Your task to perform on an android device: turn off notifications settings in the gmail app Image 0: 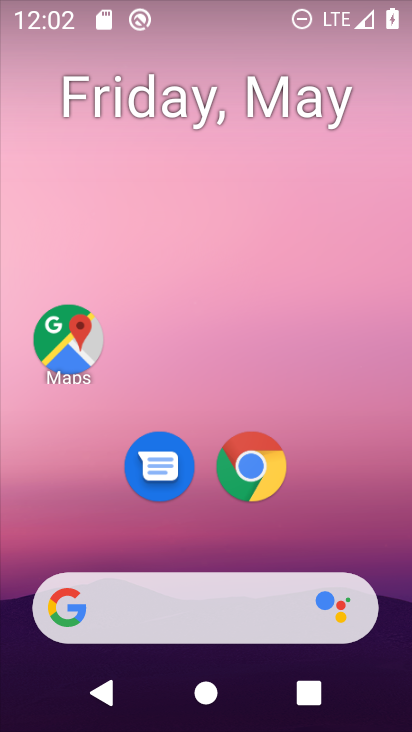
Step 0: drag from (224, 603) to (274, 34)
Your task to perform on an android device: turn off notifications settings in the gmail app Image 1: 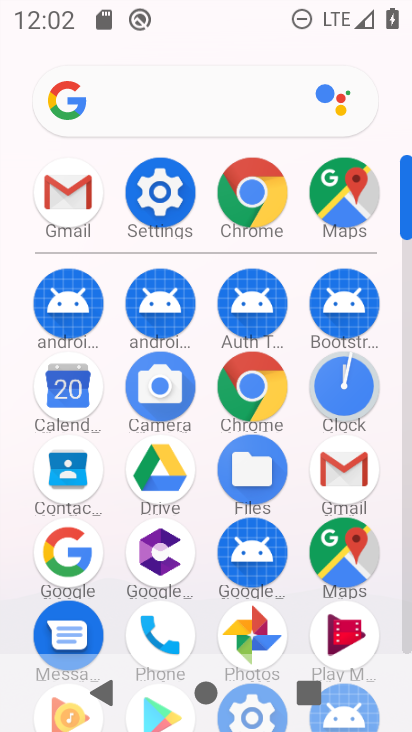
Step 1: click (358, 480)
Your task to perform on an android device: turn off notifications settings in the gmail app Image 2: 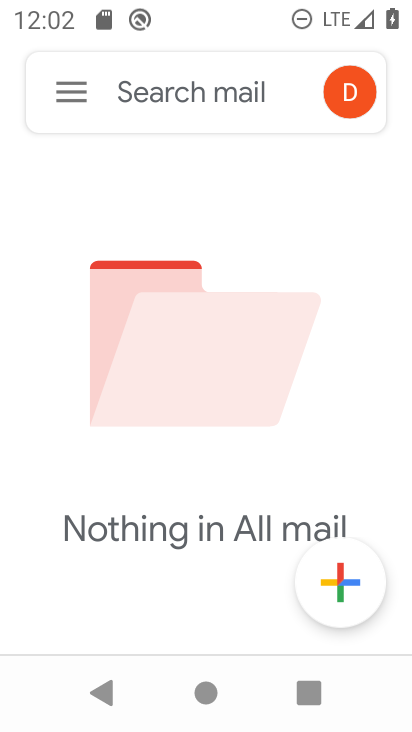
Step 2: click (325, 83)
Your task to perform on an android device: turn off notifications settings in the gmail app Image 3: 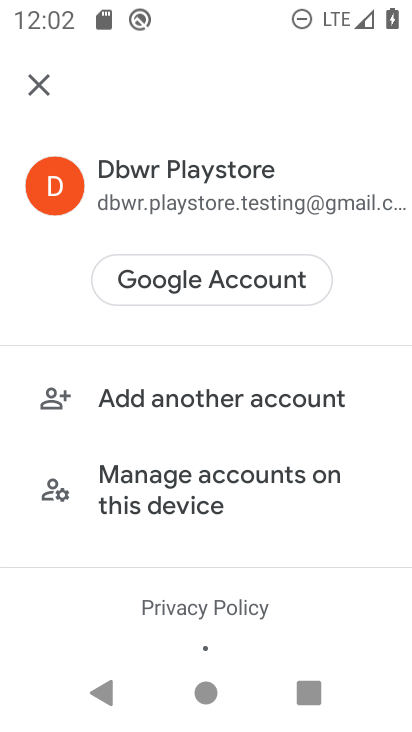
Step 3: press back button
Your task to perform on an android device: turn off notifications settings in the gmail app Image 4: 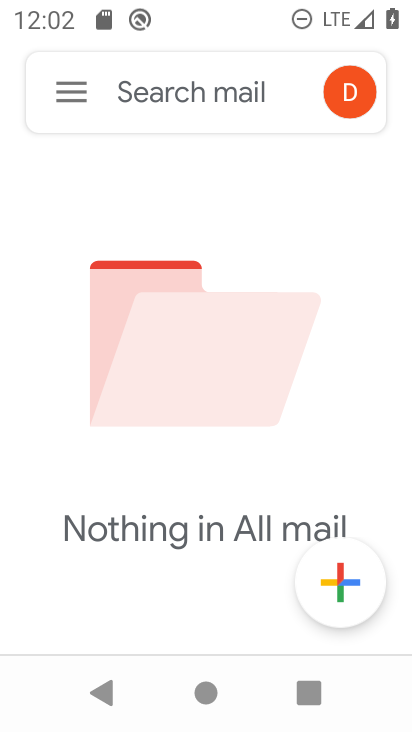
Step 4: click (67, 87)
Your task to perform on an android device: turn off notifications settings in the gmail app Image 5: 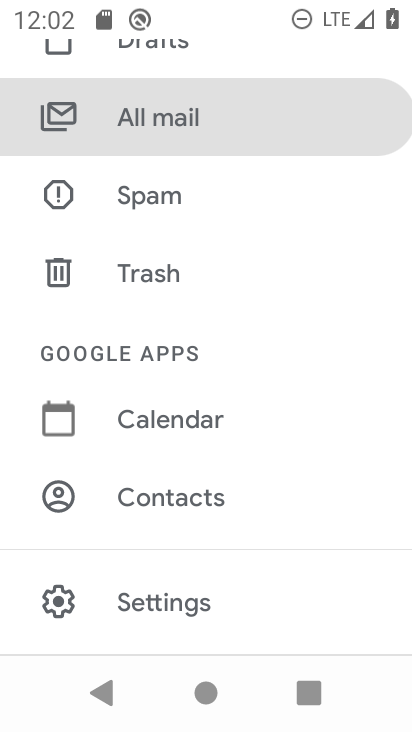
Step 5: drag from (133, 589) to (231, 134)
Your task to perform on an android device: turn off notifications settings in the gmail app Image 6: 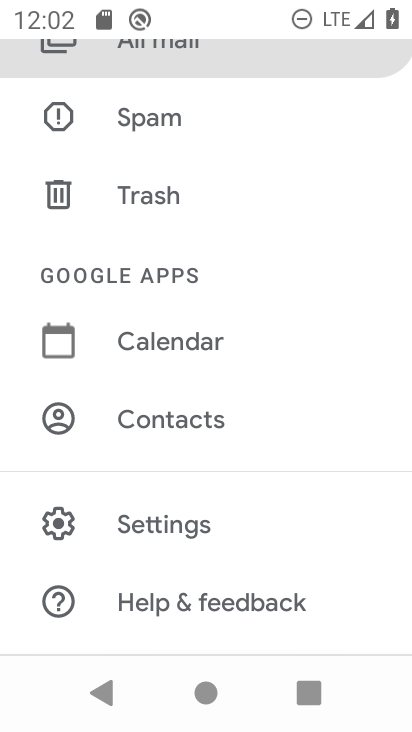
Step 6: click (208, 535)
Your task to perform on an android device: turn off notifications settings in the gmail app Image 7: 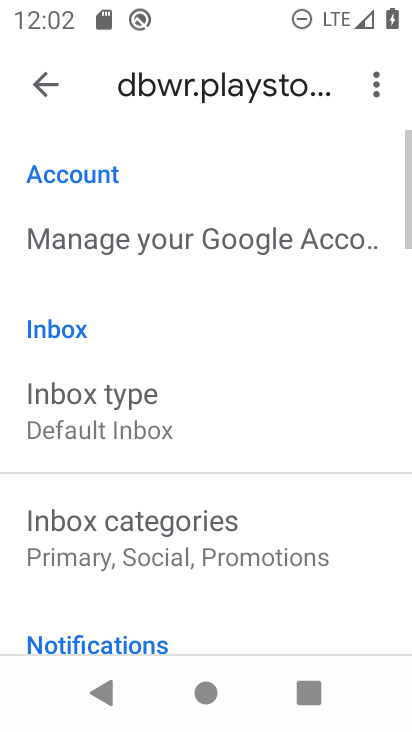
Step 7: drag from (236, 615) to (286, 72)
Your task to perform on an android device: turn off notifications settings in the gmail app Image 8: 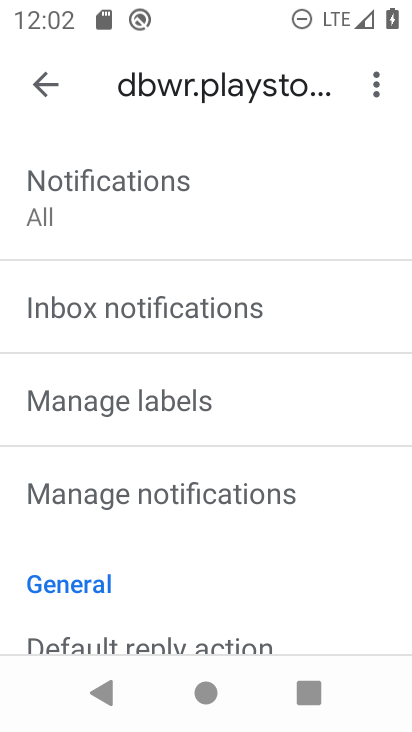
Step 8: click (204, 478)
Your task to perform on an android device: turn off notifications settings in the gmail app Image 9: 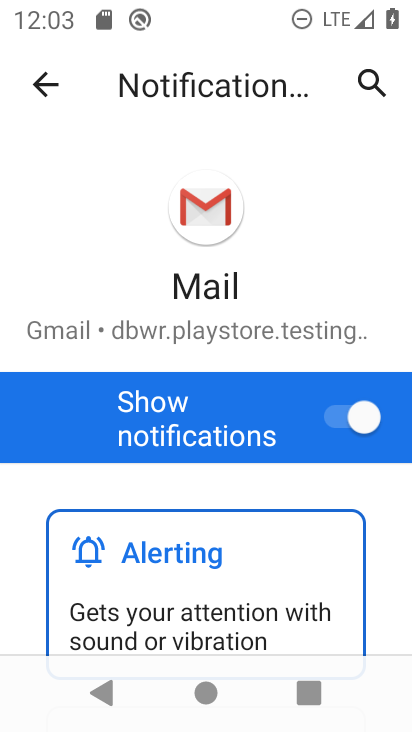
Step 9: click (331, 416)
Your task to perform on an android device: turn off notifications settings in the gmail app Image 10: 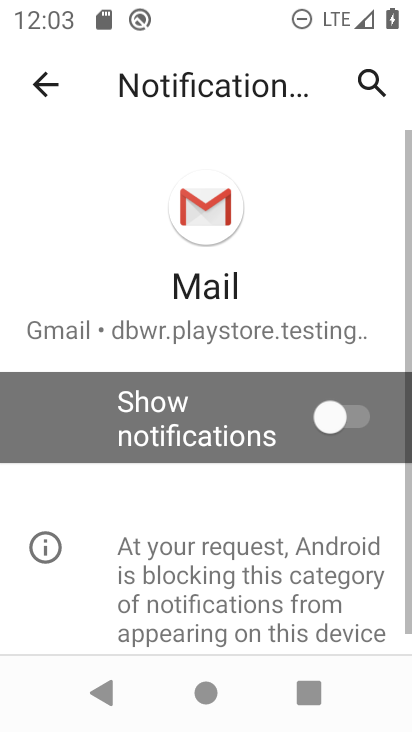
Step 10: task complete